Your task to perform on an android device: see tabs open on other devices in the chrome app Image 0: 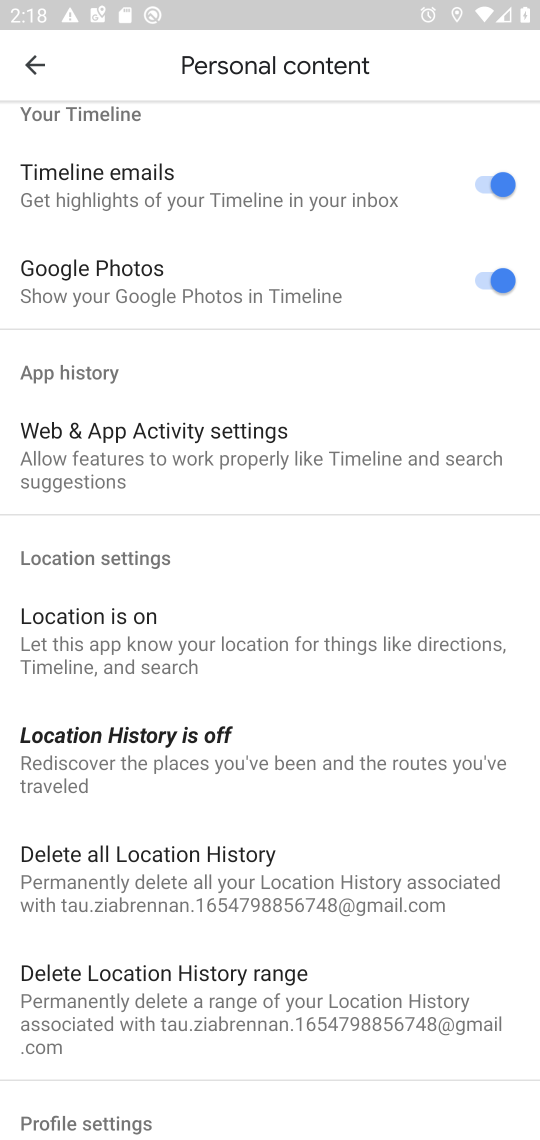
Step 0: press home button
Your task to perform on an android device: see tabs open on other devices in the chrome app Image 1: 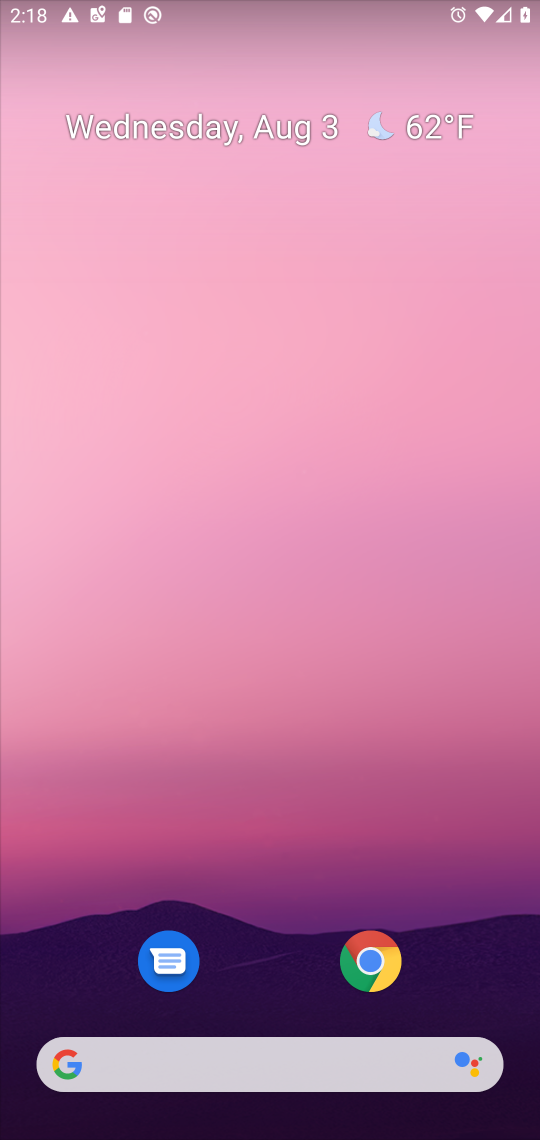
Step 1: click (369, 971)
Your task to perform on an android device: see tabs open on other devices in the chrome app Image 2: 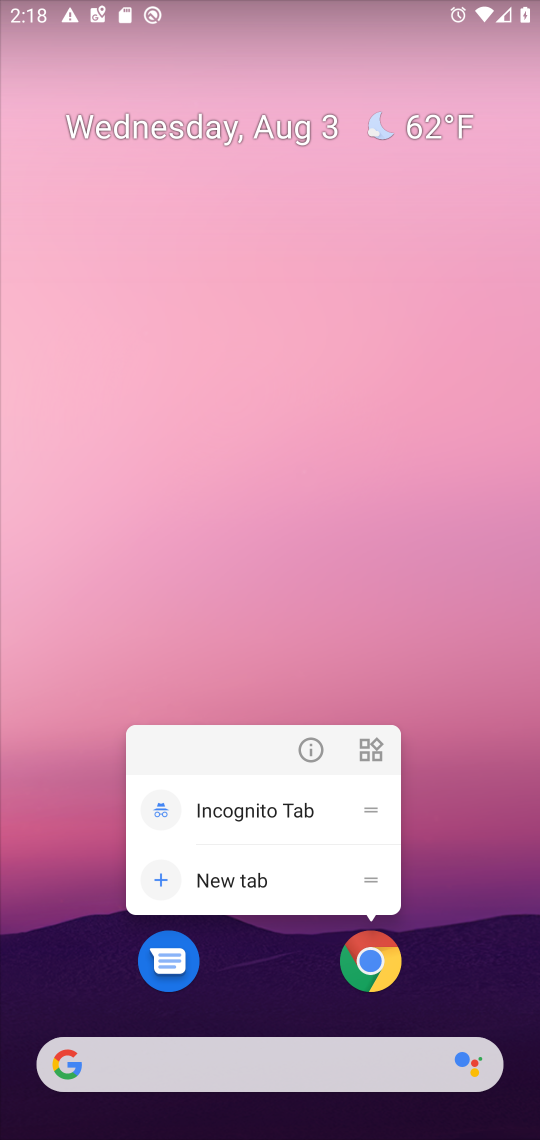
Step 2: click (369, 971)
Your task to perform on an android device: see tabs open on other devices in the chrome app Image 3: 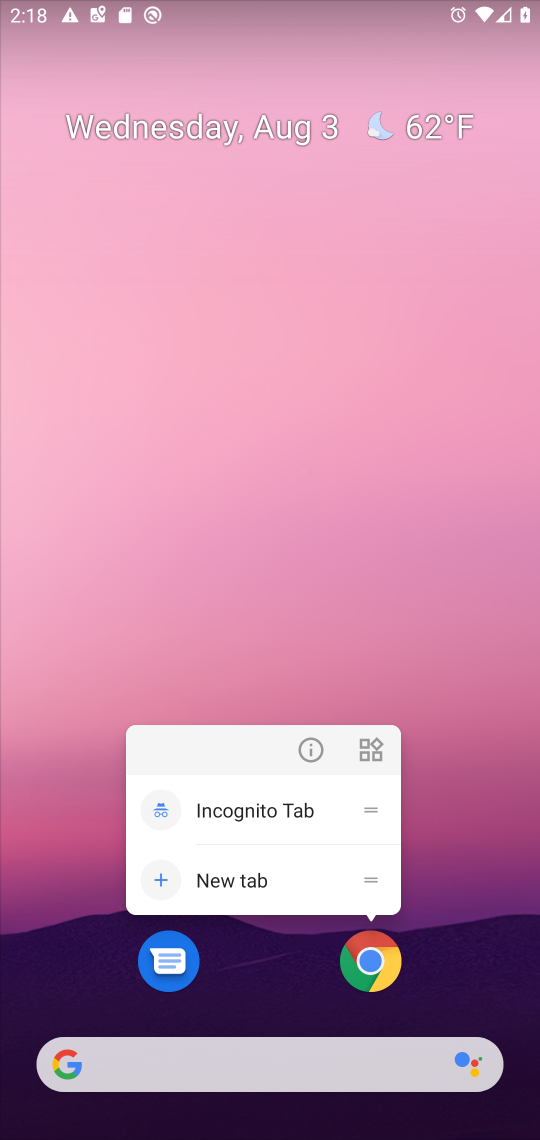
Step 3: click (371, 967)
Your task to perform on an android device: see tabs open on other devices in the chrome app Image 4: 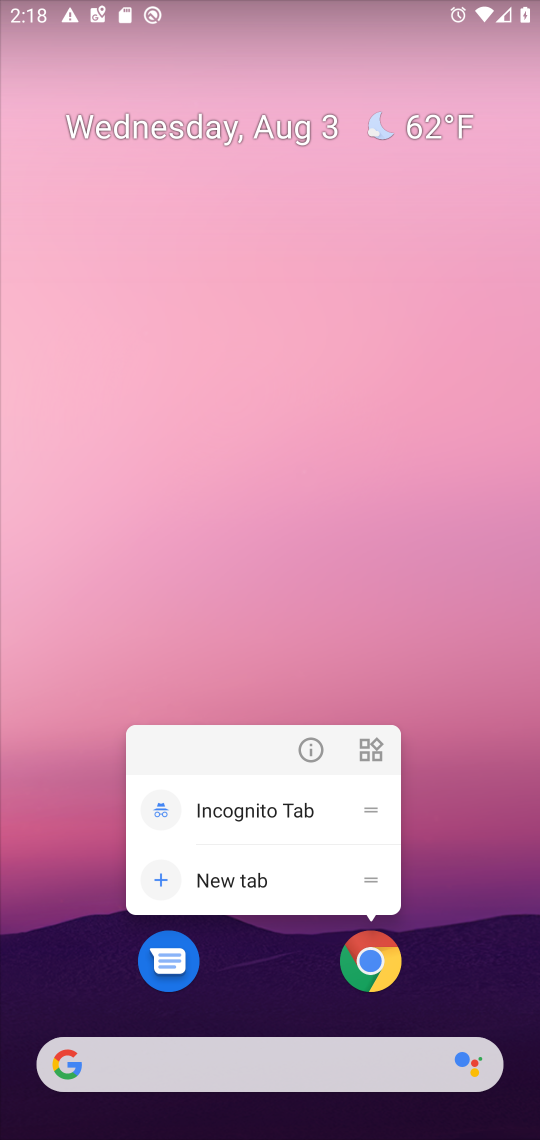
Step 4: click (376, 968)
Your task to perform on an android device: see tabs open on other devices in the chrome app Image 5: 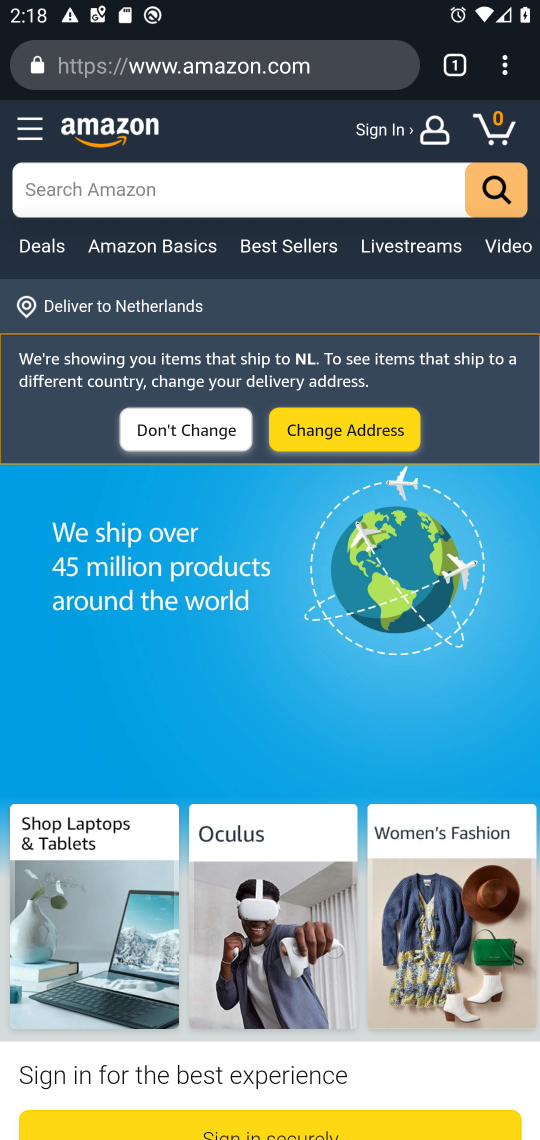
Step 5: click (508, 66)
Your task to perform on an android device: see tabs open on other devices in the chrome app Image 6: 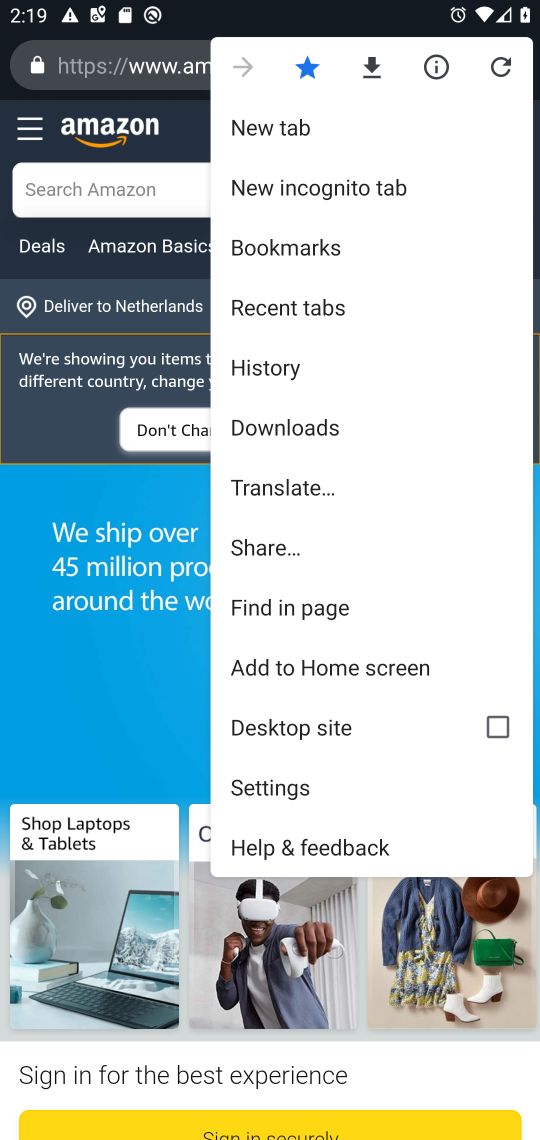
Step 6: click (279, 303)
Your task to perform on an android device: see tabs open on other devices in the chrome app Image 7: 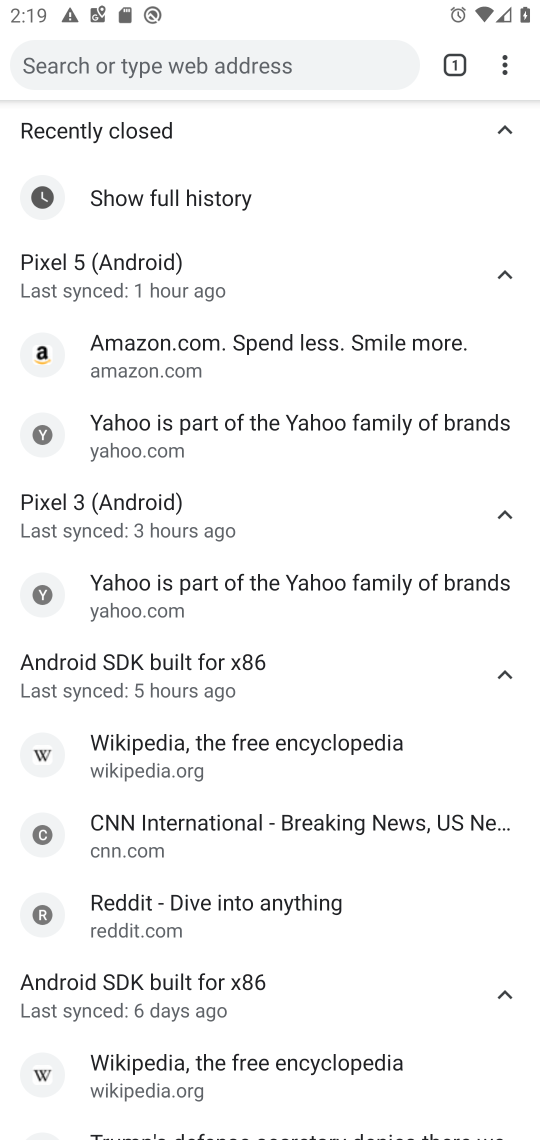
Step 7: task complete